Your task to perform on an android device: Open ESPN.com Image 0: 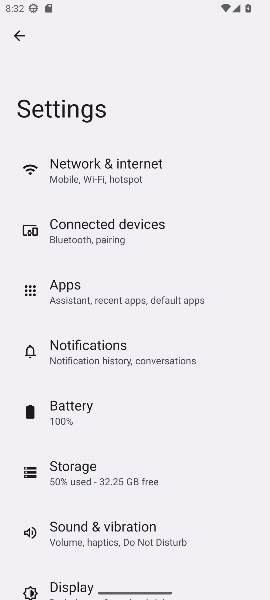
Step 0: press home button
Your task to perform on an android device: Open ESPN.com Image 1: 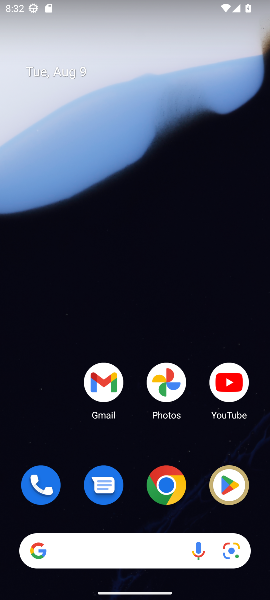
Step 1: click (159, 477)
Your task to perform on an android device: Open ESPN.com Image 2: 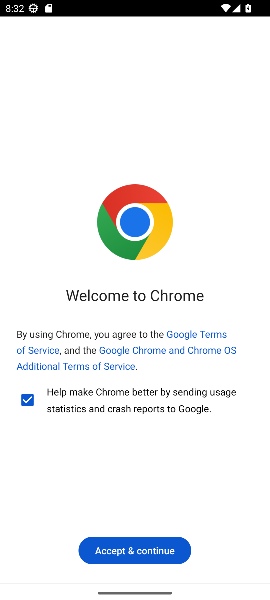
Step 2: click (166, 547)
Your task to perform on an android device: Open ESPN.com Image 3: 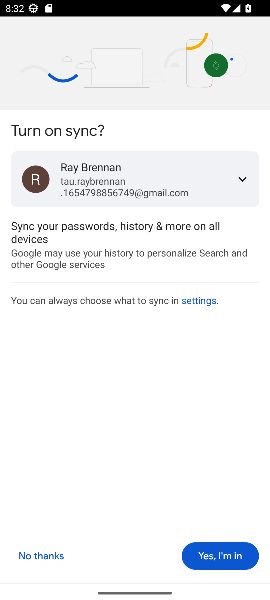
Step 3: click (209, 558)
Your task to perform on an android device: Open ESPN.com Image 4: 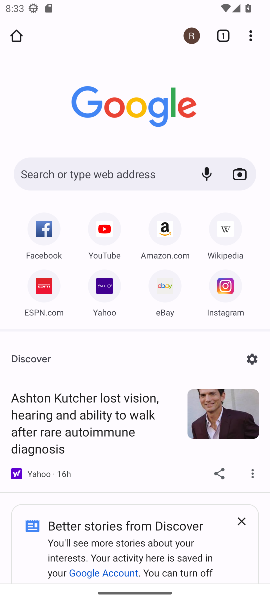
Step 4: click (50, 289)
Your task to perform on an android device: Open ESPN.com Image 5: 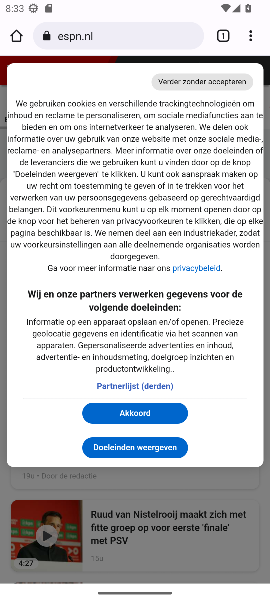
Step 5: click (120, 412)
Your task to perform on an android device: Open ESPN.com Image 6: 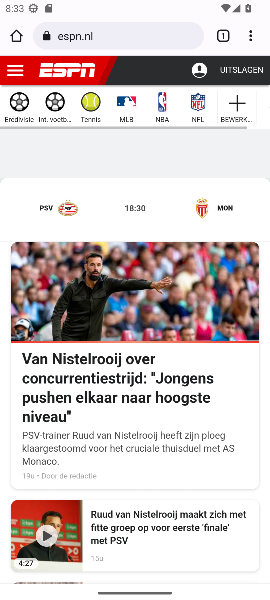
Step 6: task complete